Your task to perform on an android device: Go to Google Image 0: 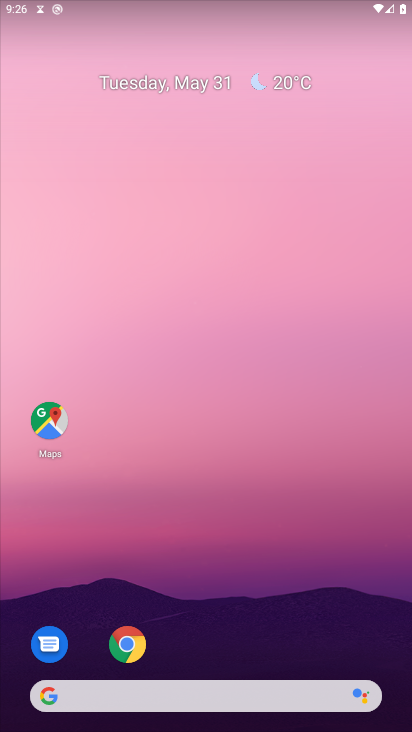
Step 0: drag from (223, 645) to (259, 116)
Your task to perform on an android device: Go to Google Image 1: 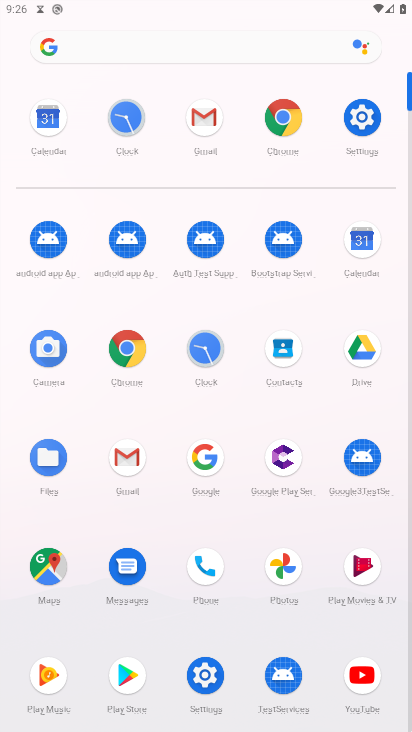
Step 1: click (199, 451)
Your task to perform on an android device: Go to Google Image 2: 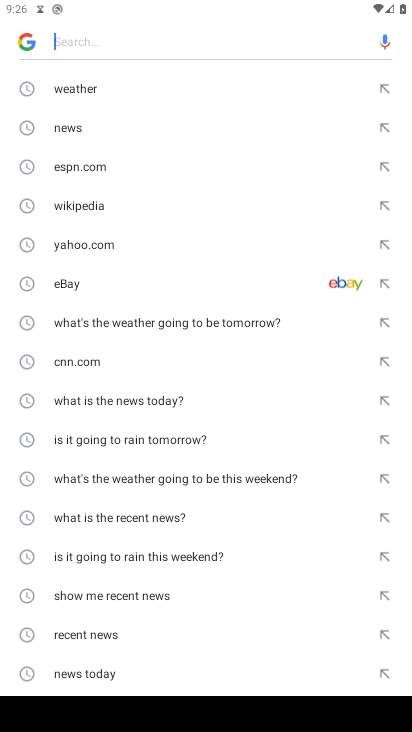
Step 2: press back button
Your task to perform on an android device: Go to Google Image 3: 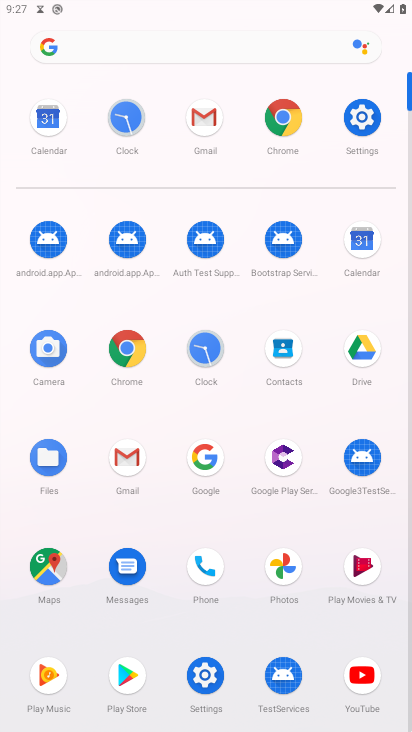
Step 3: click (211, 456)
Your task to perform on an android device: Go to Google Image 4: 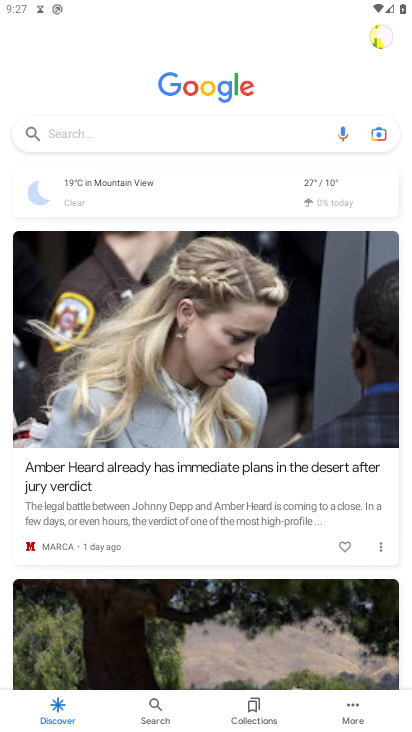
Step 4: task complete